Your task to perform on an android device: Open the stopwatch Image 0: 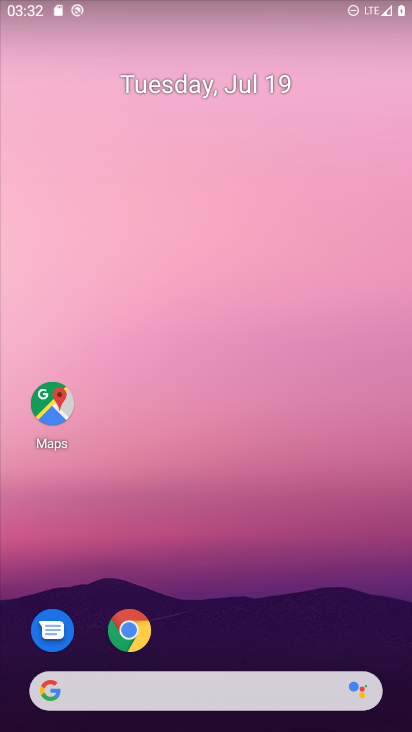
Step 0: drag from (377, 648) to (350, 138)
Your task to perform on an android device: Open the stopwatch Image 1: 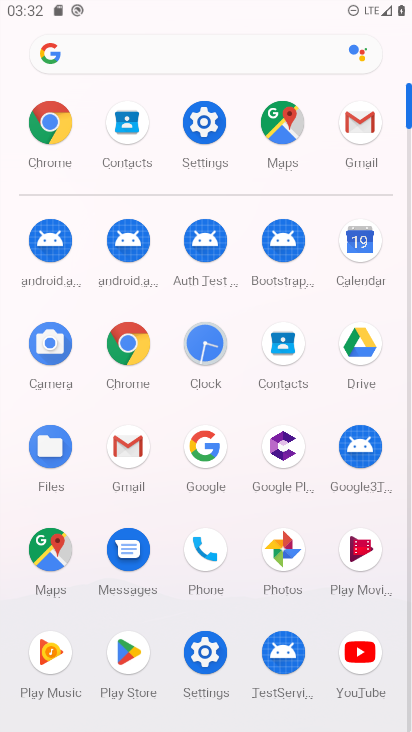
Step 1: click (203, 340)
Your task to perform on an android device: Open the stopwatch Image 2: 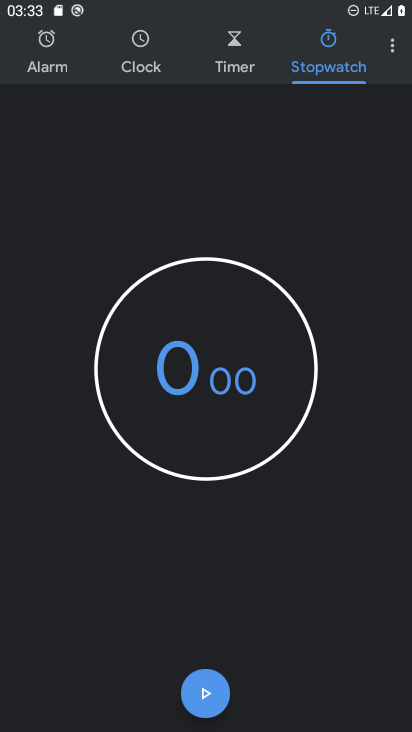
Step 2: task complete